Your task to perform on an android device: delete location history Image 0: 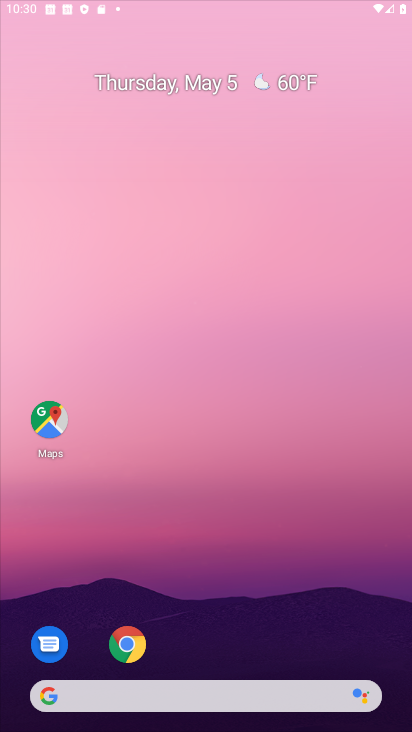
Step 0: drag from (221, 658) to (288, 9)
Your task to perform on an android device: delete location history Image 1: 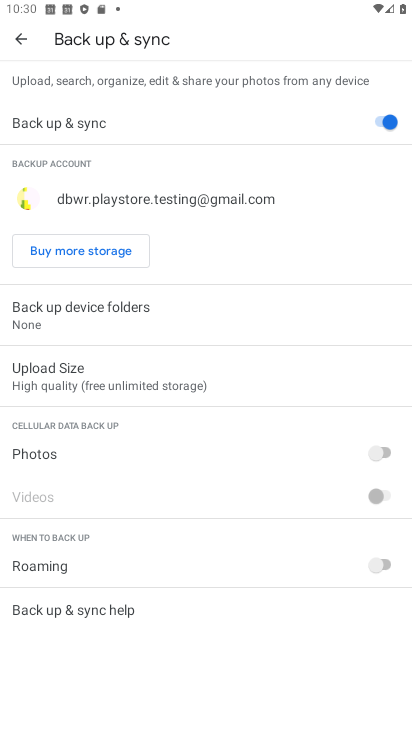
Step 1: press home button
Your task to perform on an android device: delete location history Image 2: 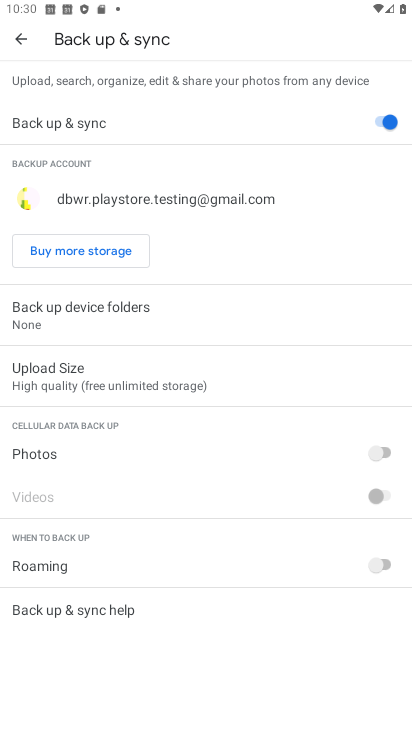
Step 2: press home button
Your task to perform on an android device: delete location history Image 3: 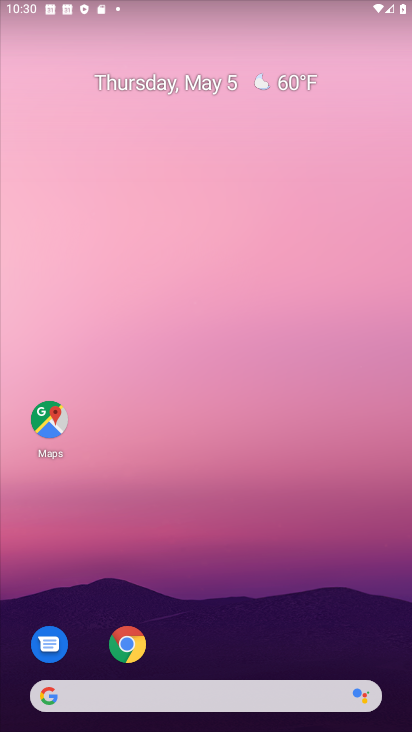
Step 3: drag from (172, 656) to (264, 161)
Your task to perform on an android device: delete location history Image 4: 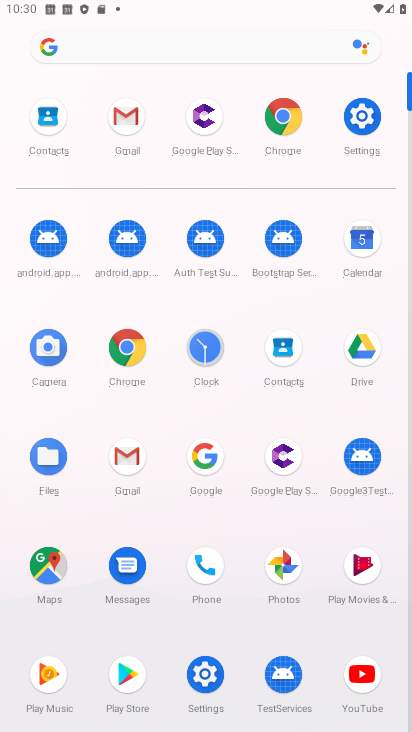
Step 4: drag from (164, 681) to (189, 249)
Your task to perform on an android device: delete location history Image 5: 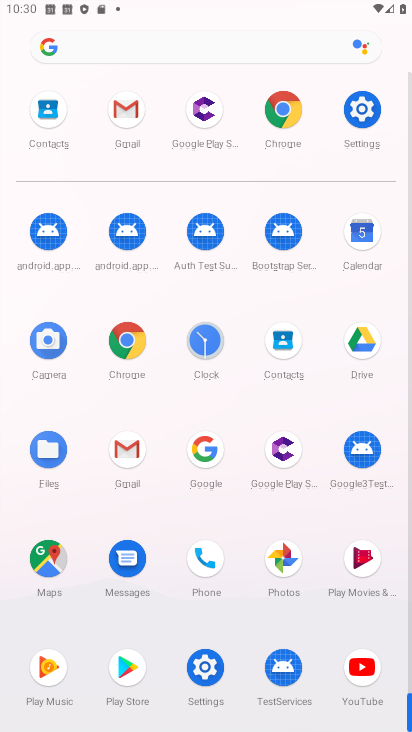
Step 5: drag from (234, 672) to (258, 302)
Your task to perform on an android device: delete location history Image 6: 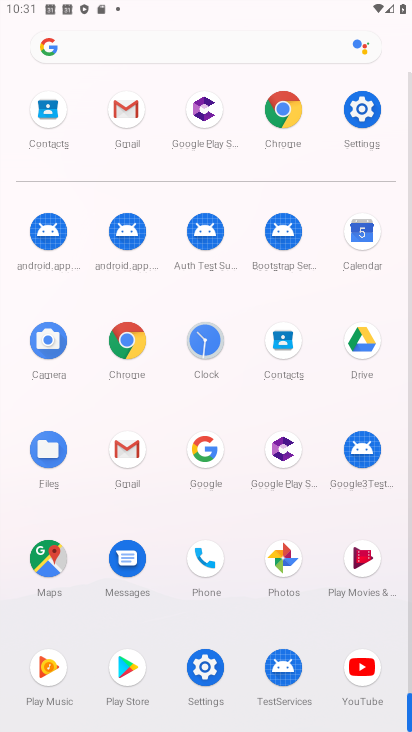
Step 6: click (198, 676)
Your task to perform on an android device: delete location history Image 7: 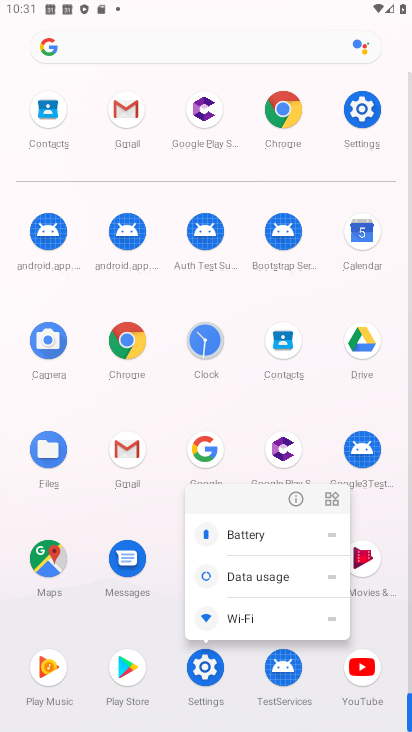
Step 7: click (297, 498)
Your task to perform on an android device: delete location history Image 8: 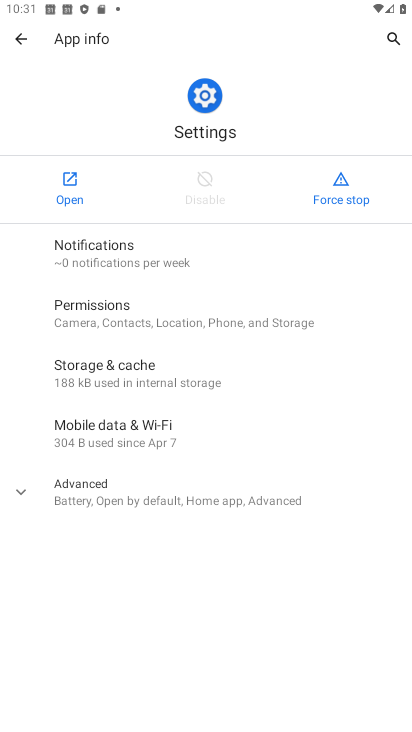
Step 8: click (76, 193)
Your task to perform on an android device: delete location history Image 9: 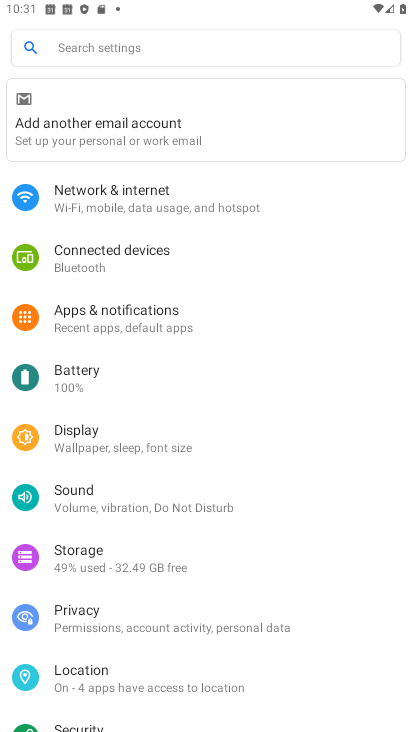
Step 9: drag from (188, 670) to (194, 232)
Your task to perform on an android device: delete location history Image 10: 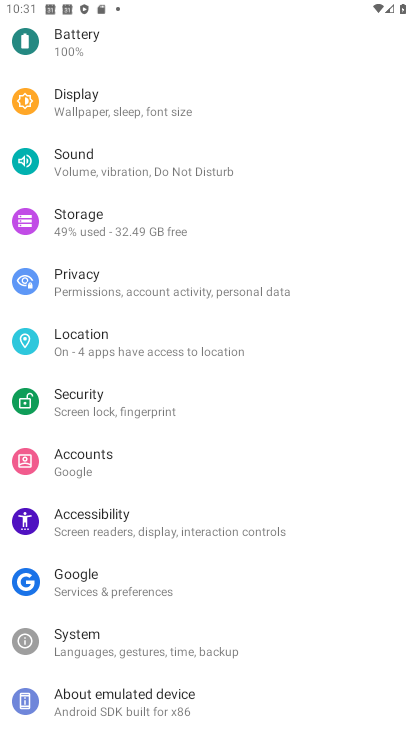
Step 10: click (109, 348)
Your task to perform on an android device: delete location history Image 11: 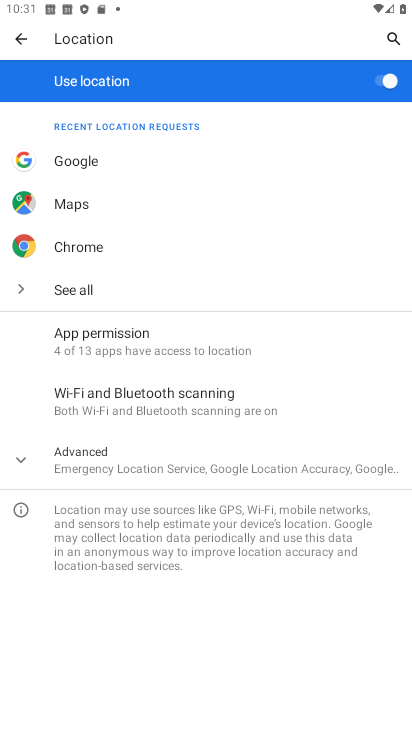
Step 11: drag from (230, 507) to (258, 302)
Your task to perform on an android device: delete location history Image 12: 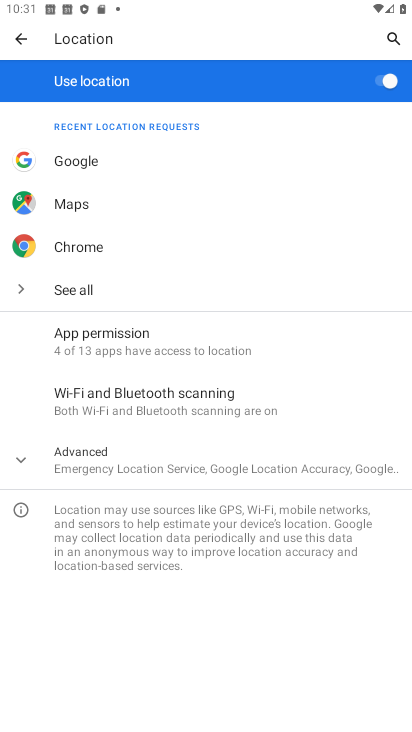
Step 12: click (175, 448)
Your task to perform on an android device: delete location history Image 13: 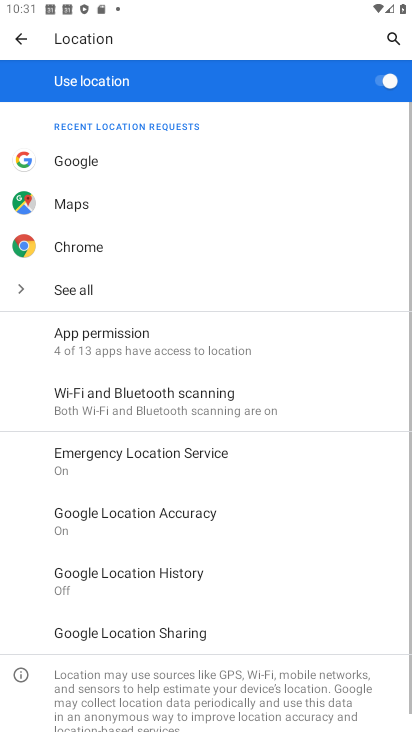
Step 13: drag from (188, 641) to (249, 399)
Your task to perform on an android device: delete location history Image 14: 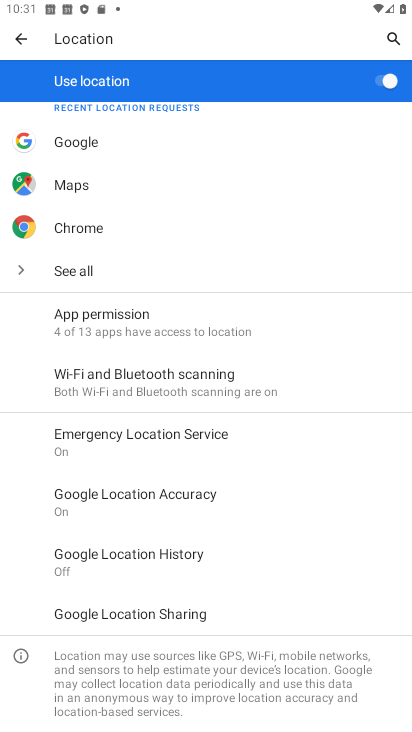
Step 14: click (159, 566)
Your task to perform on an android device: delete location history Image 15: 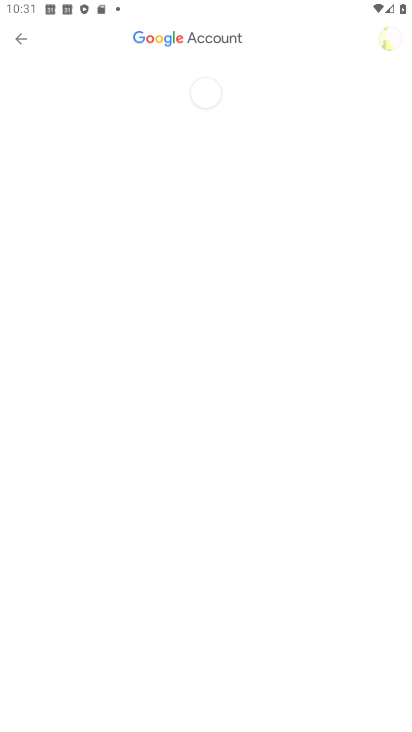
Step 15: drag from (228, 513) to (262, 188)
Your task to perform on an android device: delete location history Image 16: 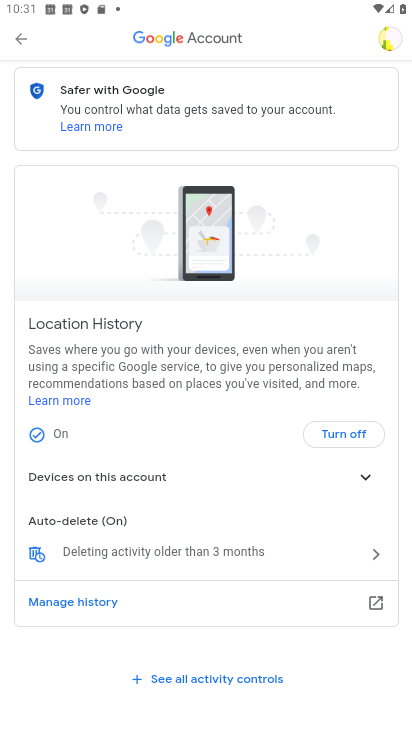
Step 16: drag from (170, 612) to (204, 358)
Your task to perform on an android device: delete location history Image 17: 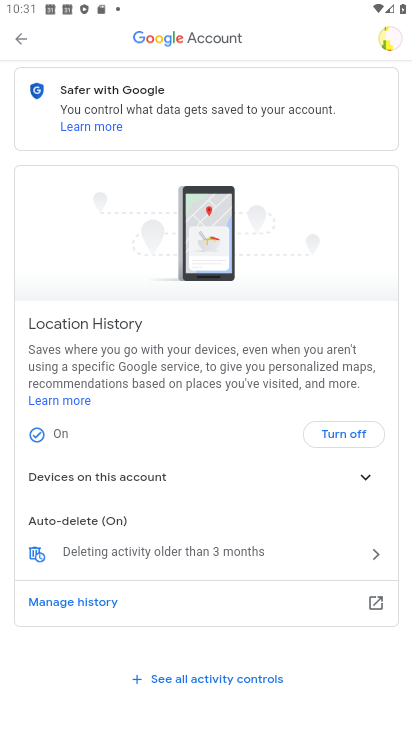
Step 17: drag from (193, 637) to (227, 398)
Your task to perform on an android device: delete location history Image 18: 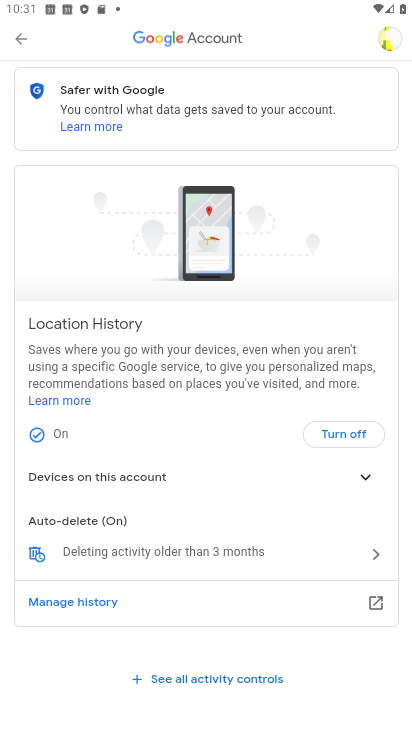
Step 18: click (38, 555)
Your task to perform on an android device: delete location history Image 19: 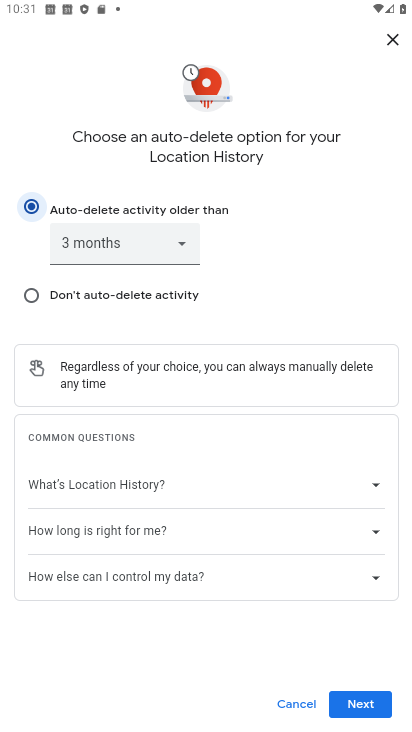
Step 19: click (347, 692)
Your task to perform on an android device: delete location history Image 20: 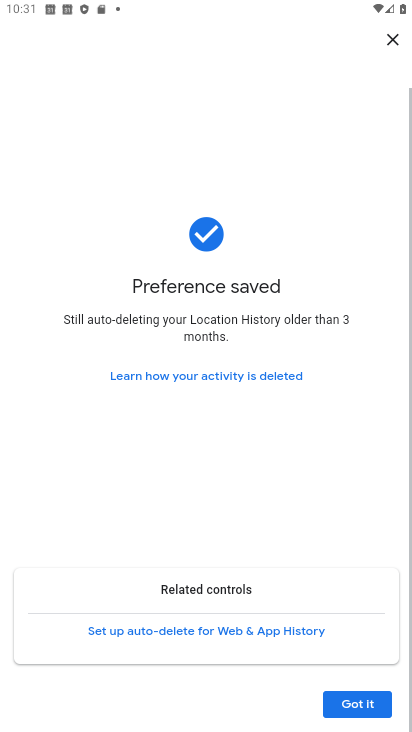
Step 20: click (345, 706)
Your task to perform on an android device: delete location history Image 21: 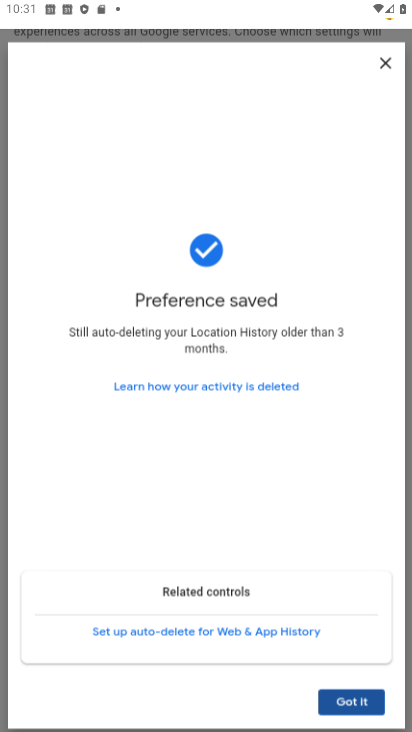
Step 21: click (345, 706)
Your task to perform on an android device: delete location history Image 22: 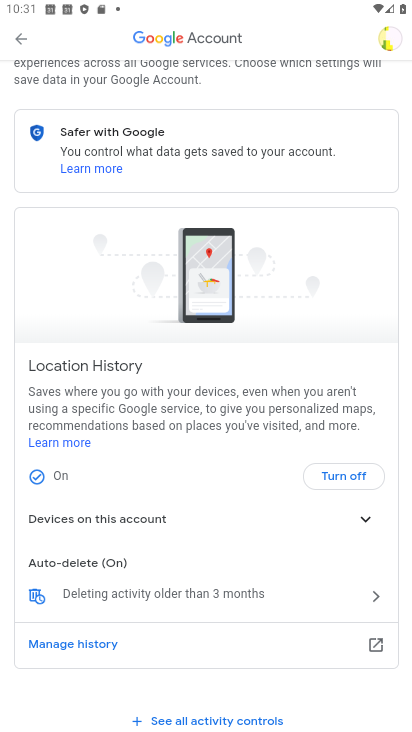
Step 22: click (345, 706)
Your task to perform on an android device: delete location history Image 23: 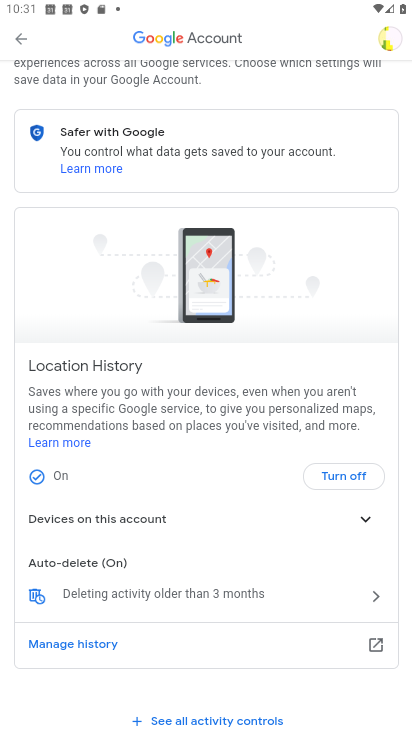
Step 23: task complete